Your task to perform on an android device: Open internet settings Image 0: 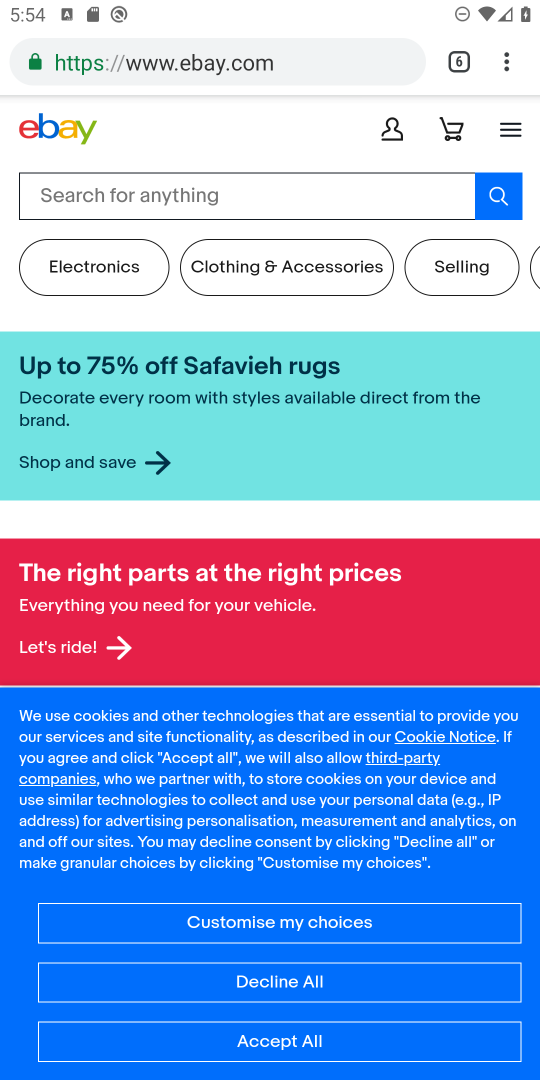
Step 0: press home button
Your task to perform on an android device: Open internet settings Image 1: 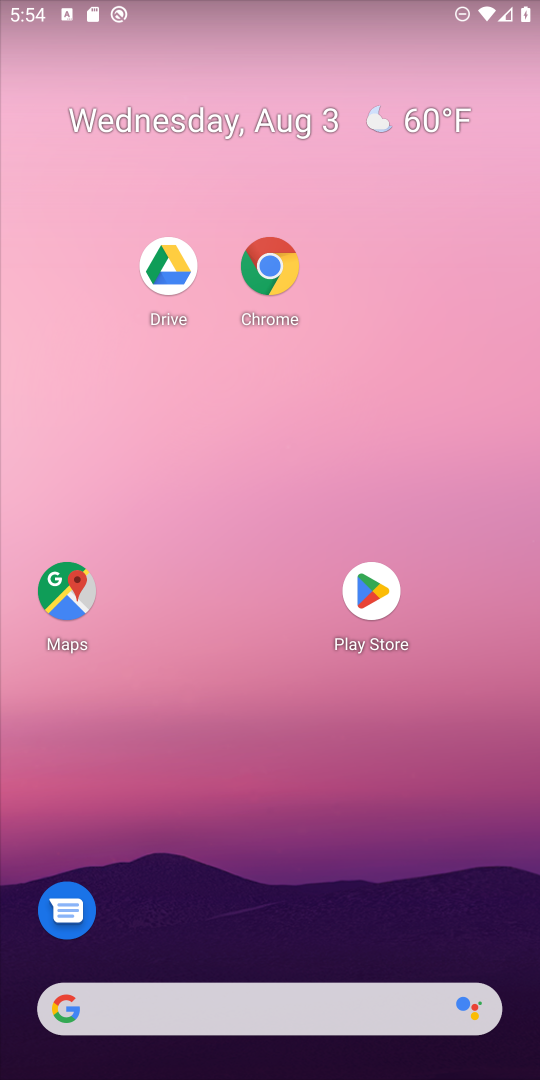
Step 1: drag from (234, 1002) to (489, 0)
Your task to perform on an android device: Open internet settings Image 2: 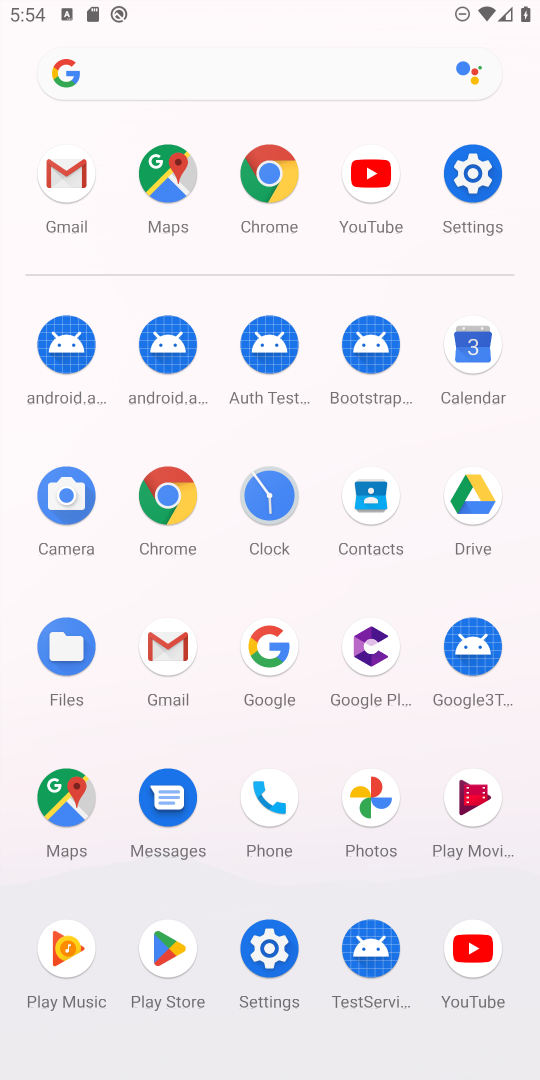
Step 2: click (473, 160)
Your task to perform on an android device: Open internet settings Image 3: 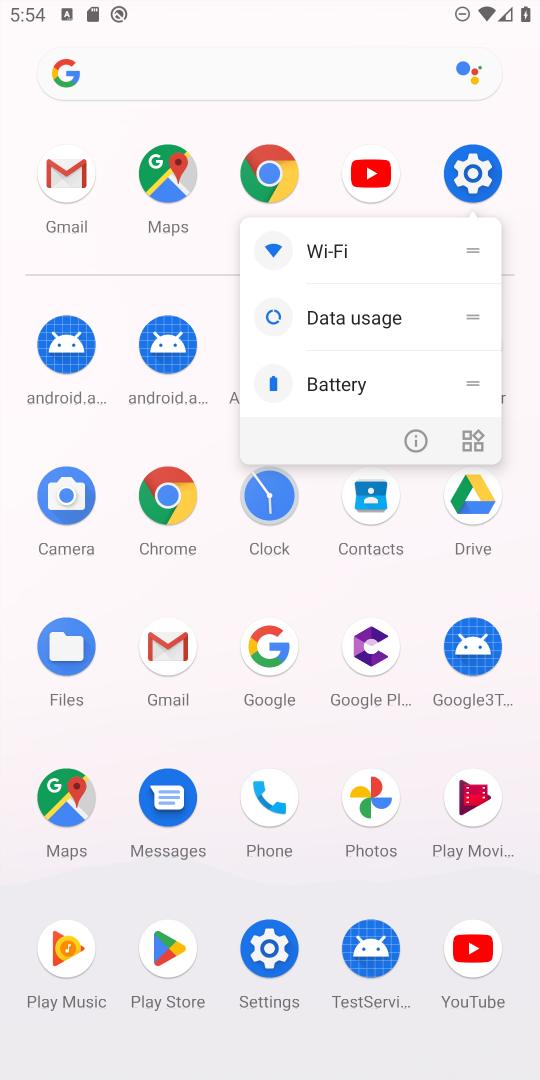
Step 3: click (473, 183)
Your task to perform on an android device: Open internet settings Image 4: 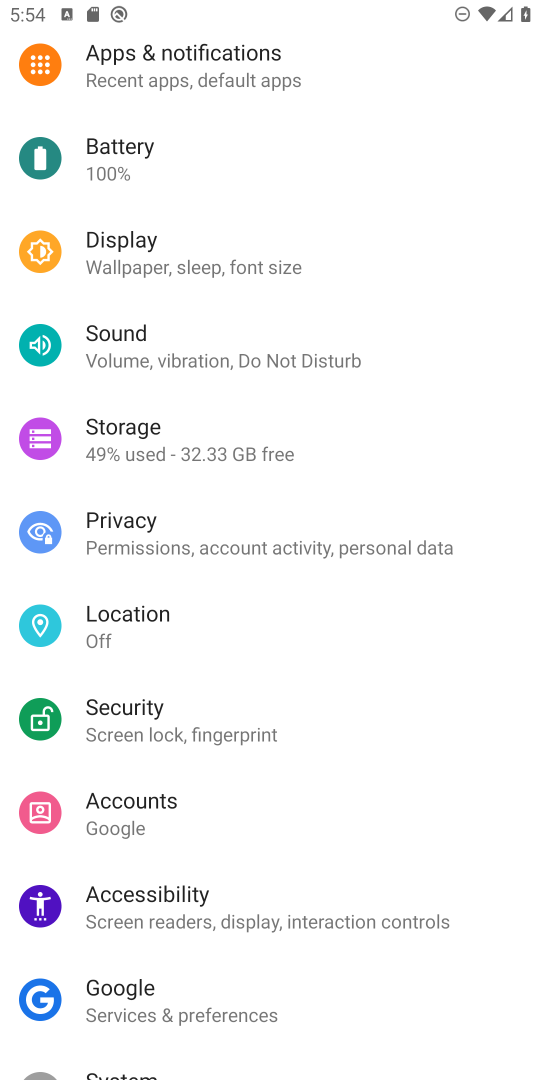
Step 4: drag from (217, 146) to (288, 724)
Your task to perform on an android device: Open internet settings Image 5: 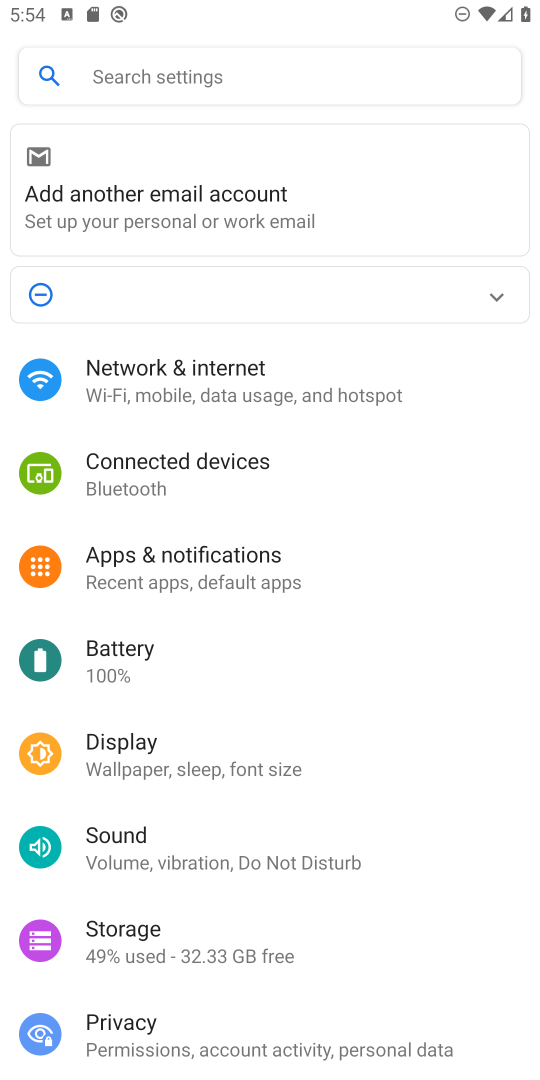
Step 5: click (223, 394)
Your task to perform on an android device: Open internet settings Image 6: 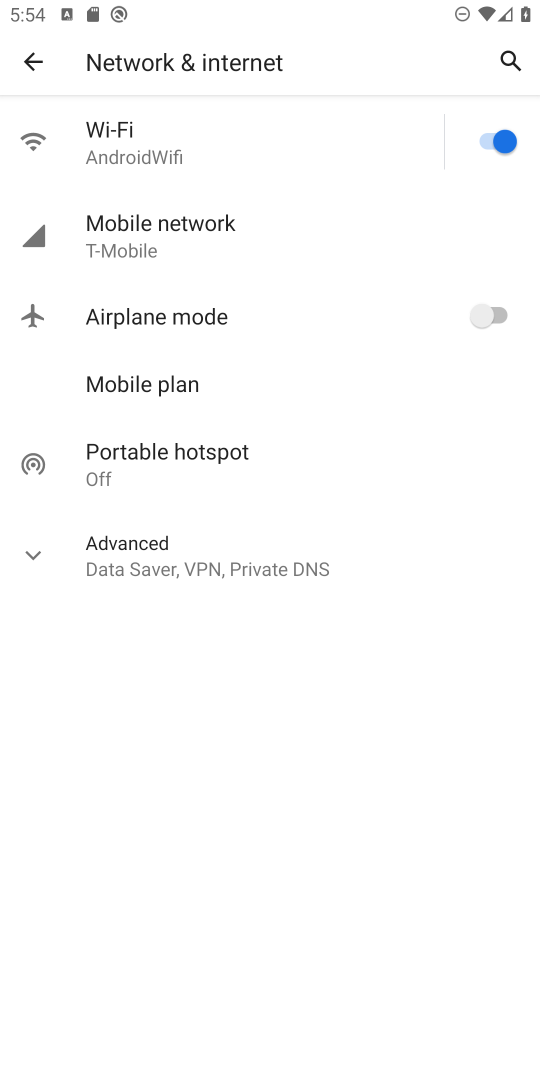
Step 6: task complete